Your task to perform on an android device: manage bookmarks in the chrome app Image 0: 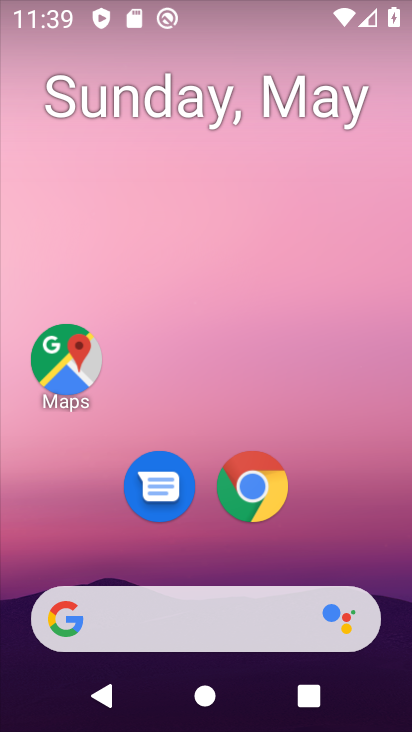
Step 0: click (318, 158)
Your task to perform on an android device: manage bookmarks in the chrome app Image 1: 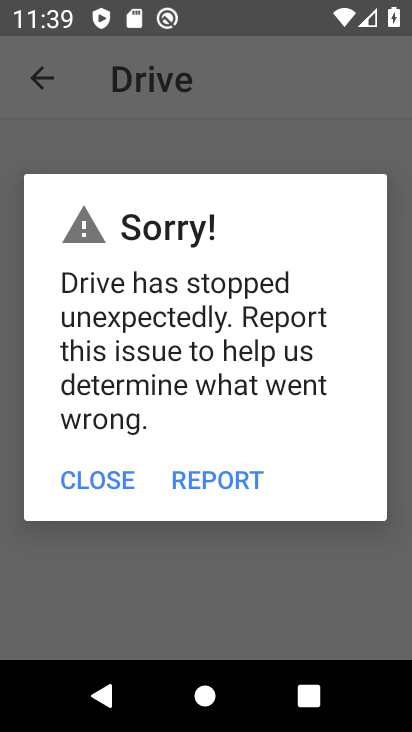
Step 1: press home button
Your task to perform on an android device: manage bookmarks in the chrome app Image 2: 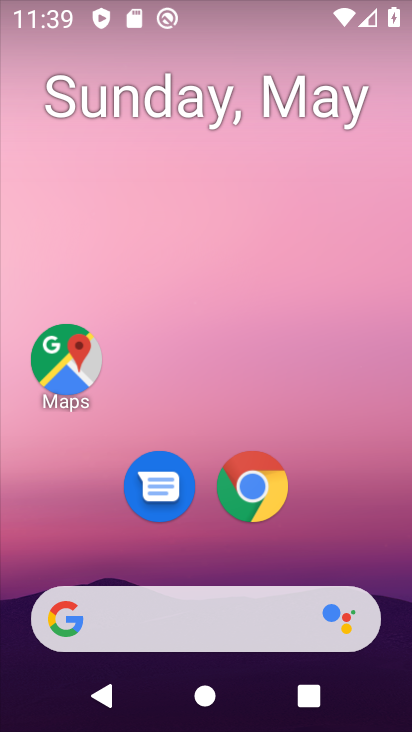
Step 2: click (280, 493)
Your task to perform on an android device: manage bookmarks in the chrome app Image 3: 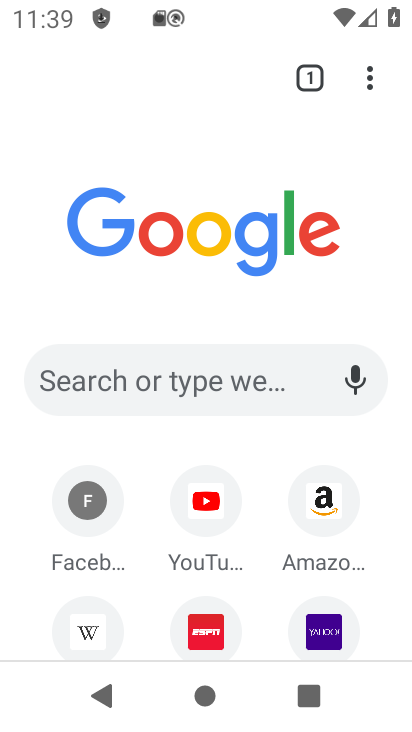
Step 3: click (372, 89)
Your task to perform on an android device: manage bookmarks in the chrome app Image 4: 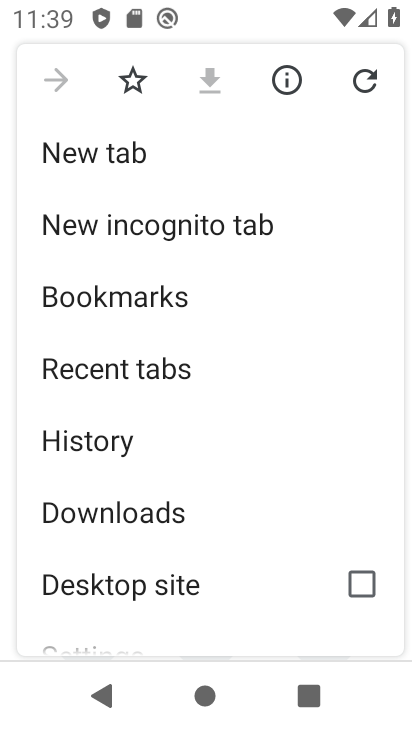
Step 4: click (272, 296)
Your task to perform on an android device: manage bookmarks in the chrome app Image 5: 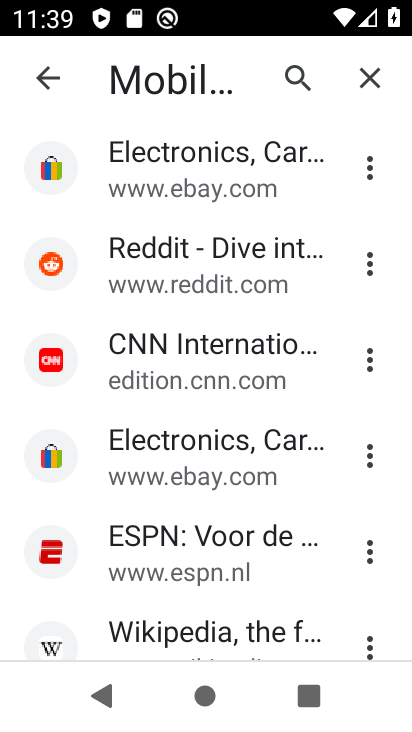
Step 5: click (256, 285)
Your task to perform on an android device: manage bookmarks in the chrome app Image 6: 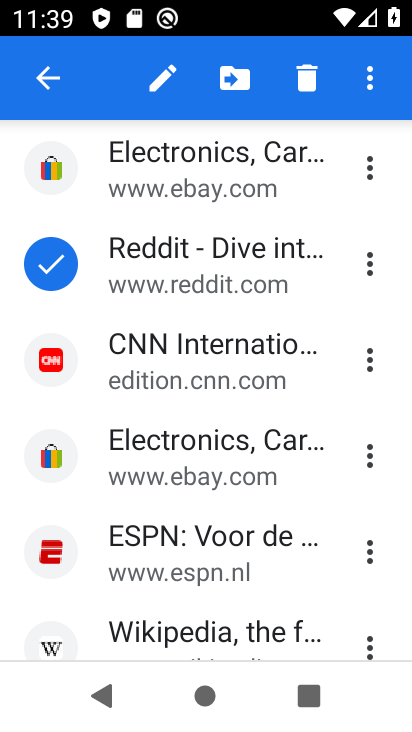
Step 6: click (239, 68)
Your task to perform on an android device: manage bookmarks in the chrome app Image 7: 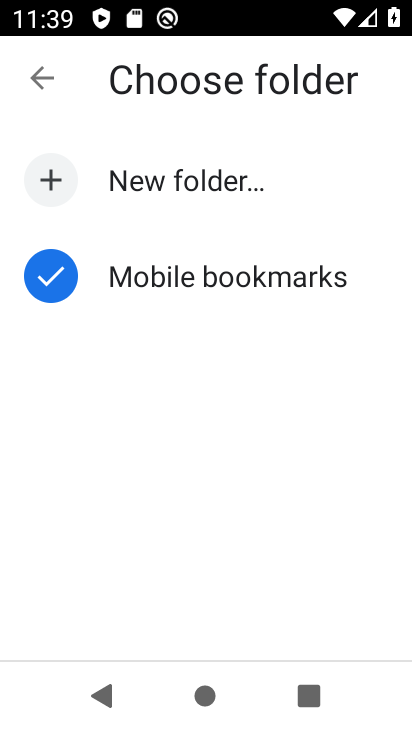
Step 7: click (194, 287)
Your task to perform on an android device: manage bookmarks in the chrome app Image 8: 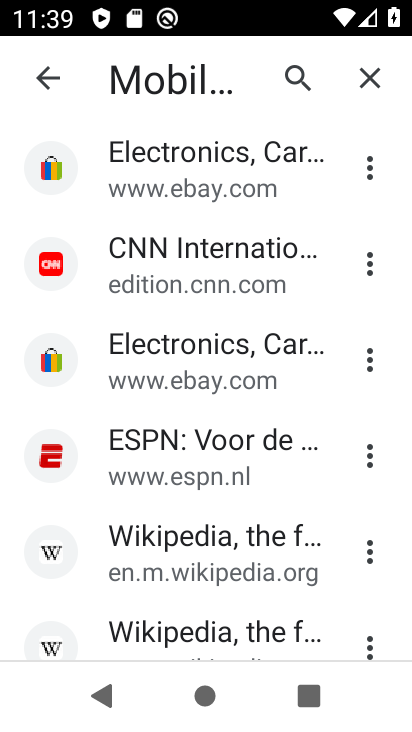
Step 8: task complete